Your task to perform on an android device: Go to location settings Image 0: 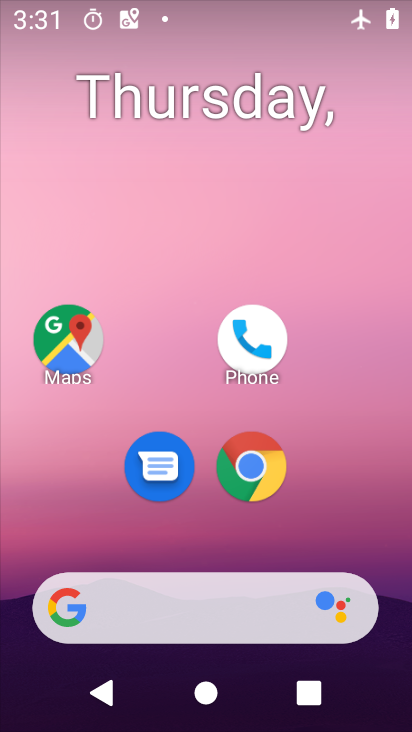
Step 0: drag from (200, 552) to (223, 202)
Your task to perform on an android device: Go to location settings Image 1: 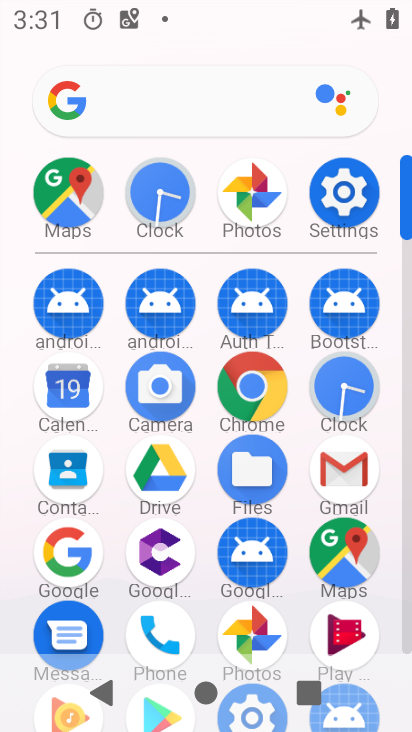
Step 1: drag from (208, 626) to (228, 291)
Your task to perform on an android device: Go to location settings Image 2: 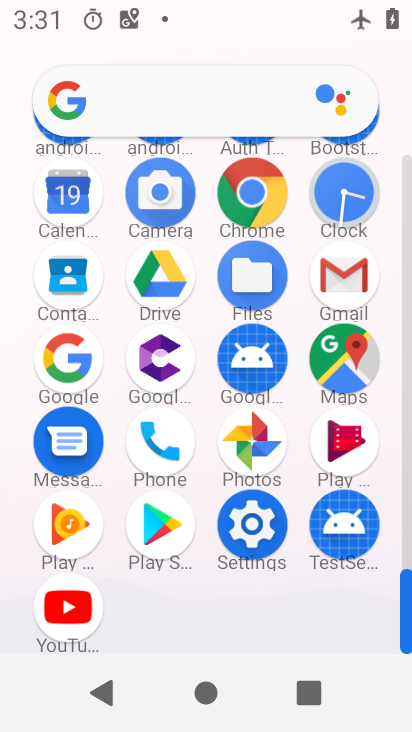
Step 2: drag from (211, 552) to (180, 350)
Your task to perform on an android device: Go to location settings Image 3: 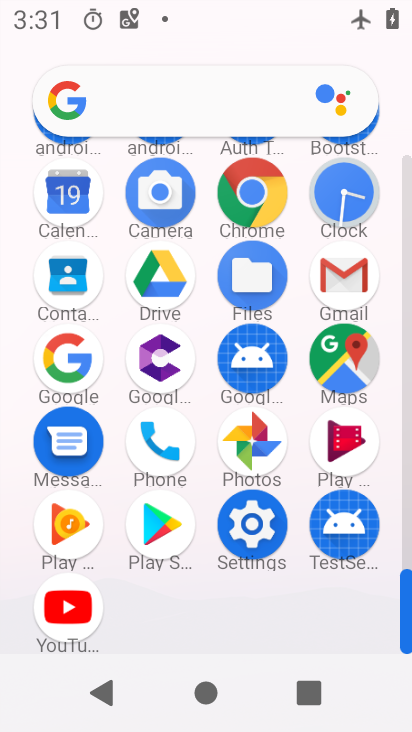
Step 3: click (253, 525)
Your task to perform on an android device: Go to location settings Image 4: 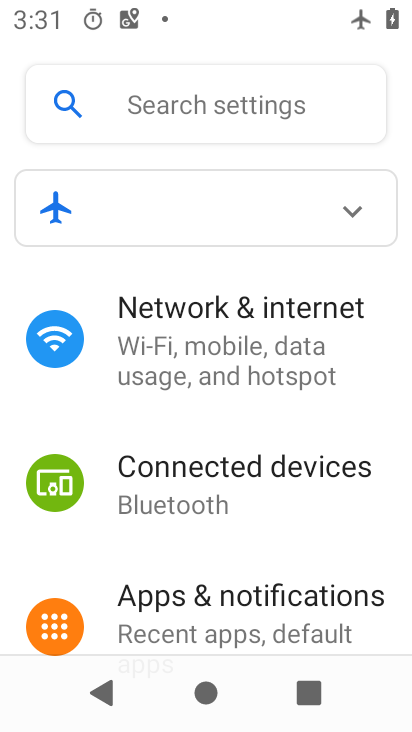
Step 4: drag from (231, 576) to (238, 286)
Your task to perform on an android device: Go to location settings Image 5: 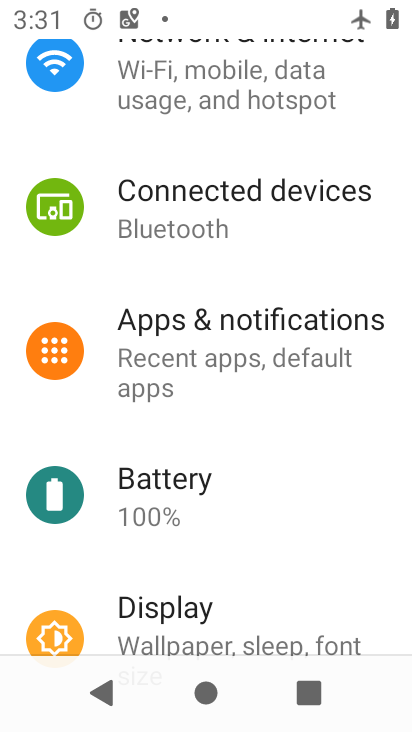
Step 5: drag from (219, 555) to (228, 376)
Your task to perform on an android device: Go to location settings Image 6: 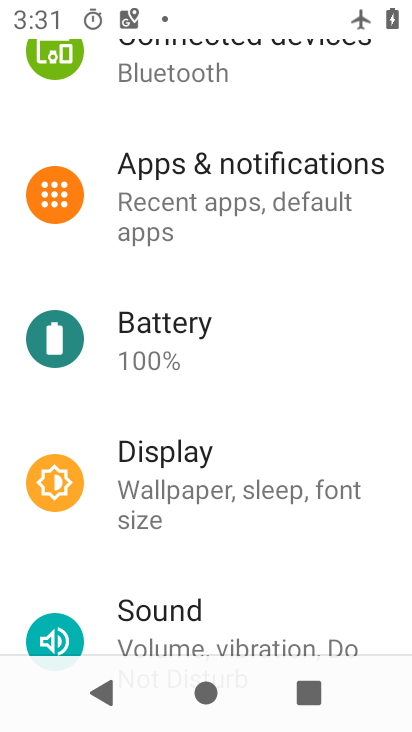
Step 6: drag from (231, 498) to (227, 275)
Your task to perform on an android device: Go to location settings Image 7: 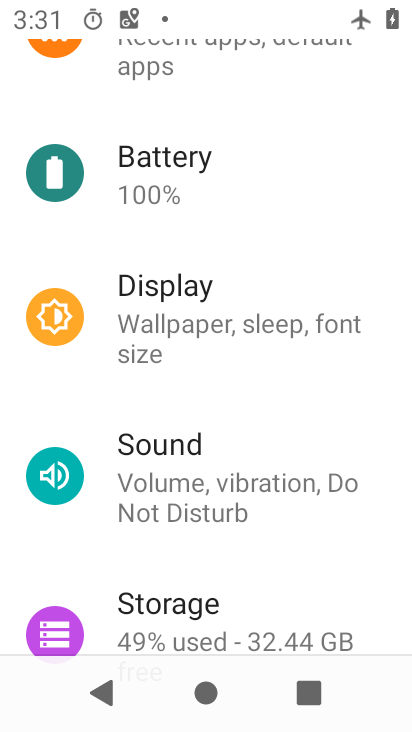
Step 7: drag from (231, 188) to (254, 604)
Your task to perform on an android device: Go to location settings Image 8: 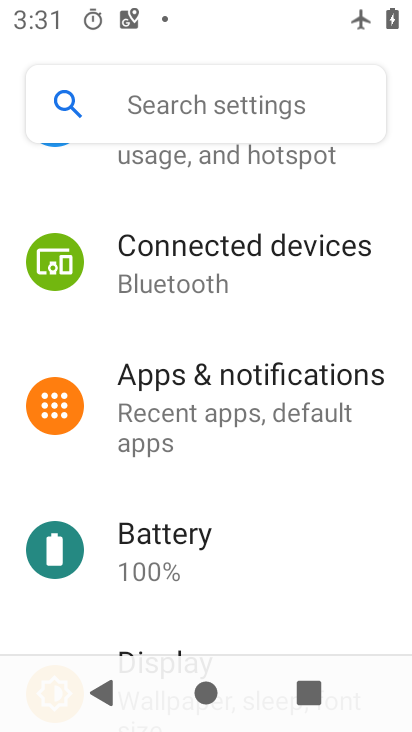
Step 8: drag from (231, 290) to (253, 584)
Your task to perform on an android device: Go to location settings Image 9: 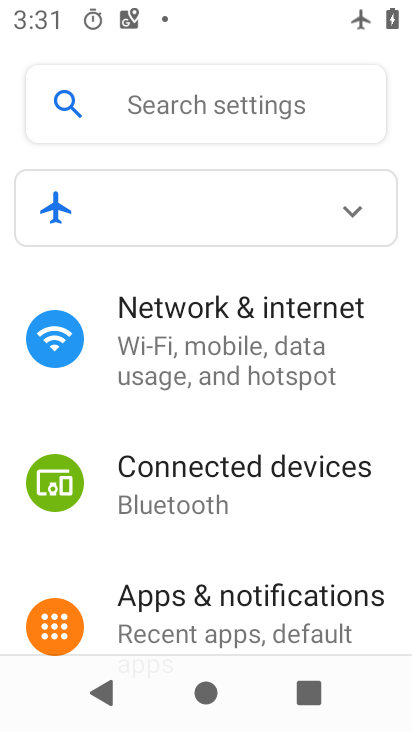
Step 9: drag from (231, 501) to (251, 673)
Your task to perform on an android device: Go to location settings Image 10: 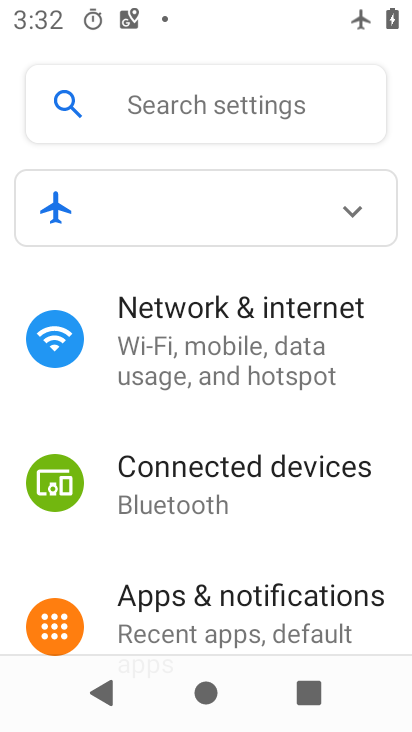
Step 10: drag from (259, 573) to (271, 404)
Your task to perform on an android device: Go to location settings Image 11: 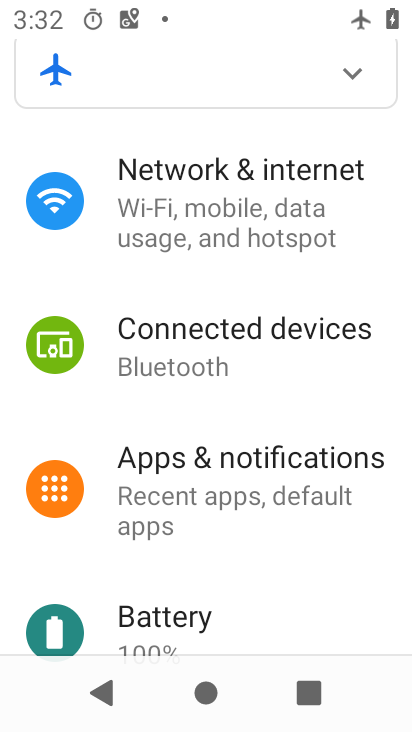
Step 11: drag from (246, 569) to (271, 250)
Your task to perform on an android device: Go to location settings Image 12: 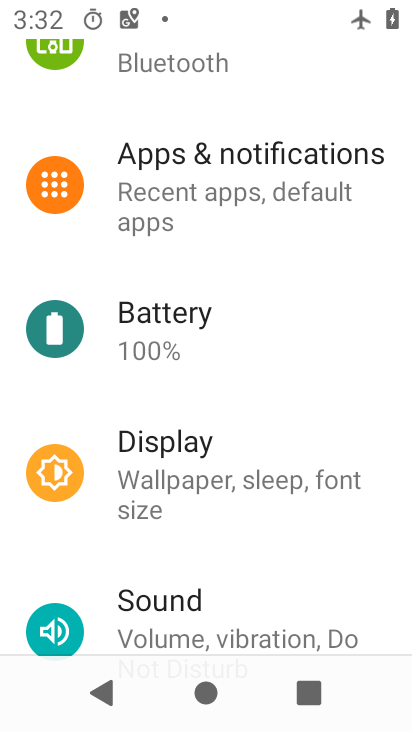
Step 12: drag from (250, 536) to (282, 130)
Your task to perform on an android device: Go to location settings Image 13: 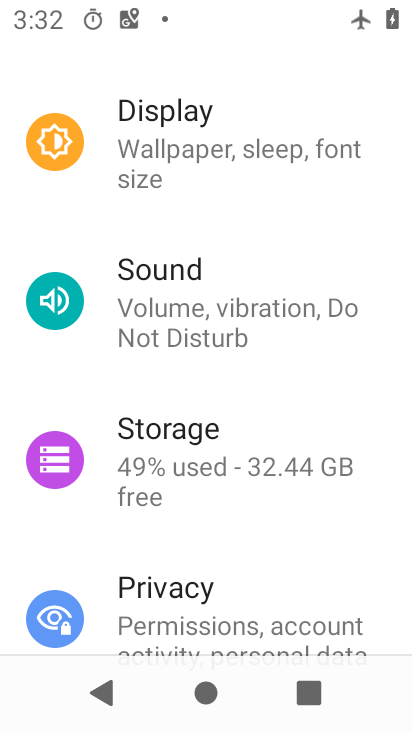
Step 13: drag from (218, 536) to (281, 191)
Your task to perform on an android device: Go to location settings Image 14: 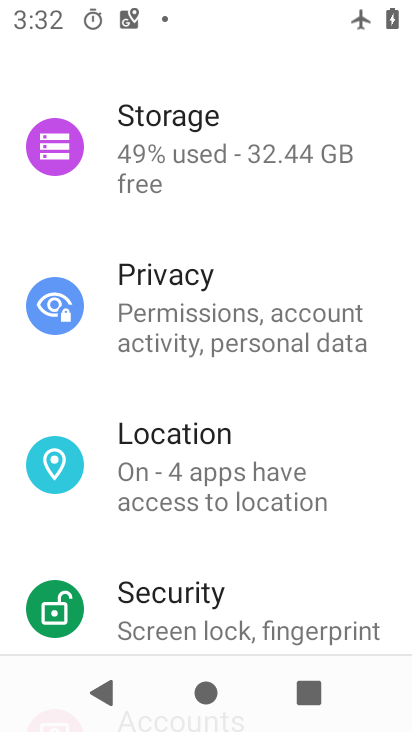
Step 14: click (175, 441)
Your task to perform on an android device: Go to location settings Image 15: 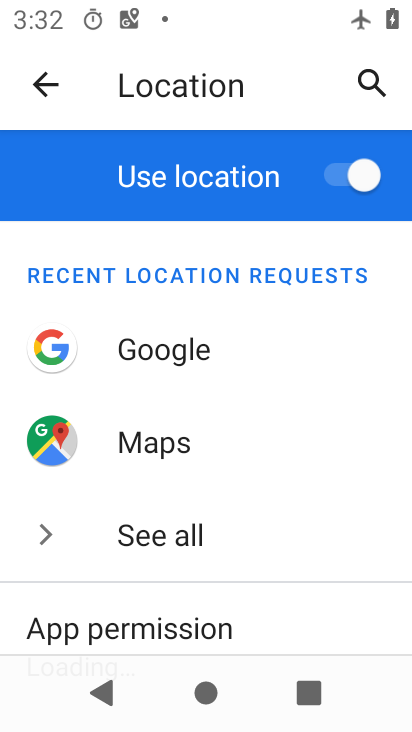
Step 15: task complete